Your task to perform on an android device: Search for pizza restaurants on Maps Image 0: 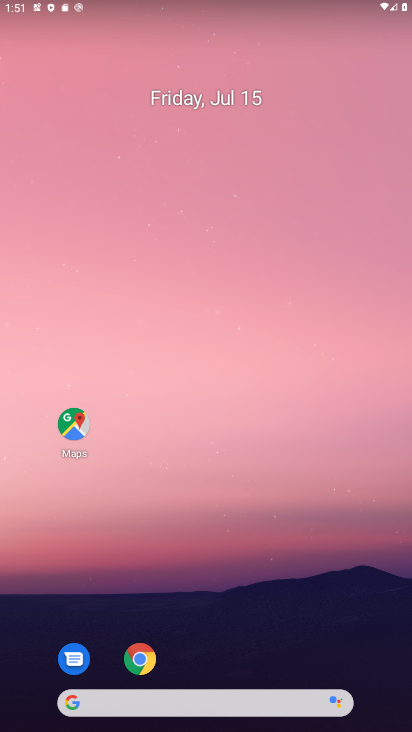
Step 0: drag from (182, 665) to (203, 262)
Your task to perform on an android device: Search for pizza restaurants on Maps Image 1: 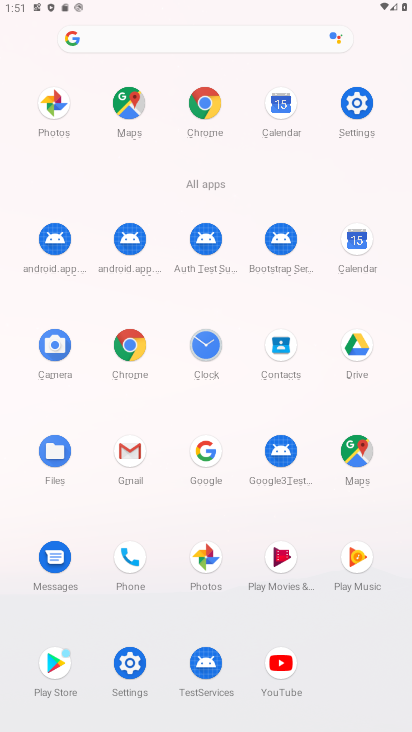
Step 1: click (344, 452)
Your task to perform on an android device: Search for pizza restaurants on Maps Image 2: 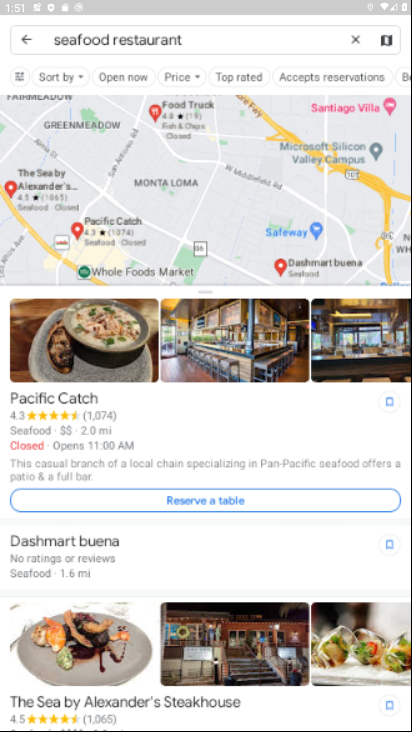
Step 2: click (353, 39)
Your task to perform on an android device: Search for pizza restaurants on Maps Image 3: 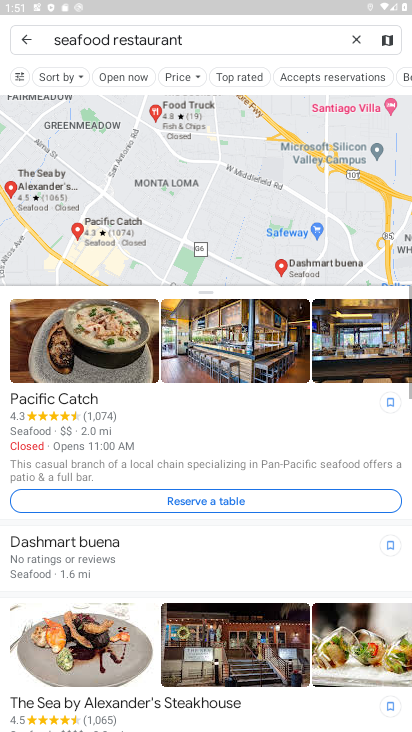
Step 3: click (353, 39)
Your task to perform on an android device: Search for pizza restaurants on Maps Image 4: 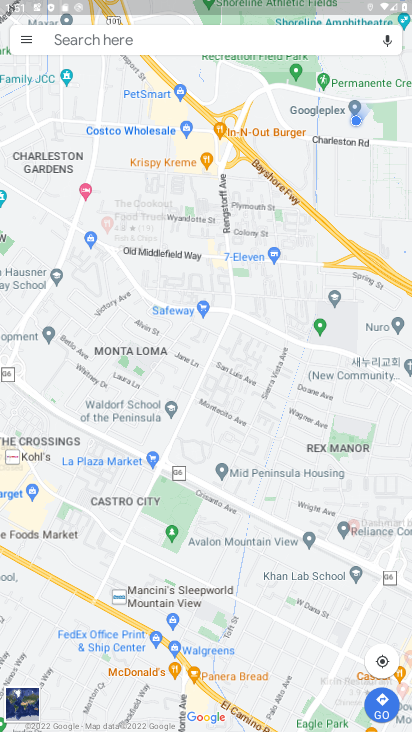
Step 4: click (86, 34)
Your task to perform on an android device: Search for pizza restaurants on Maps Image 5: 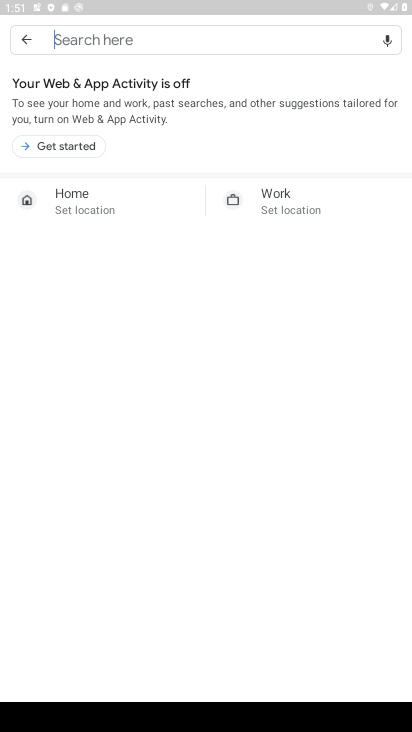
Step 5: click (152, 29)
Your task to perform on an android device: Search for pizza restaurants on Maps Image 6: 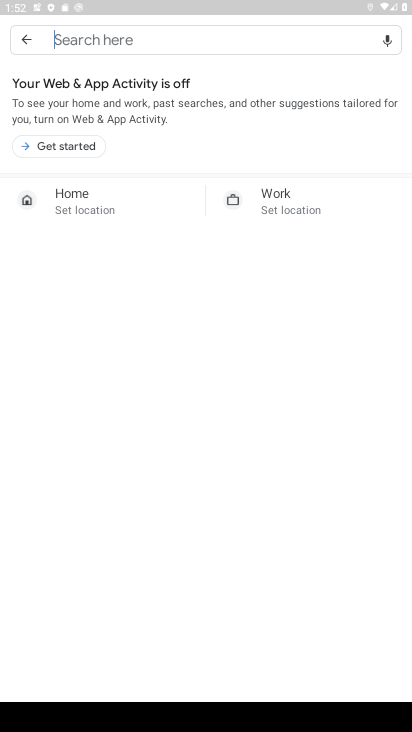
Step 6: type " pizza restaurants  "
Your task to perform on an android device: Search for pizza restaurants on Maps Image 7: 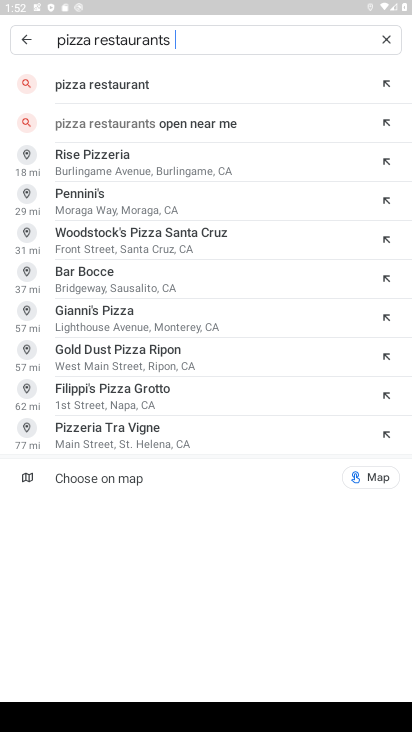
Step 7: click (134, 78)
Your task to perform on an android device: Search for pizza restaurants on Maps Image 8: 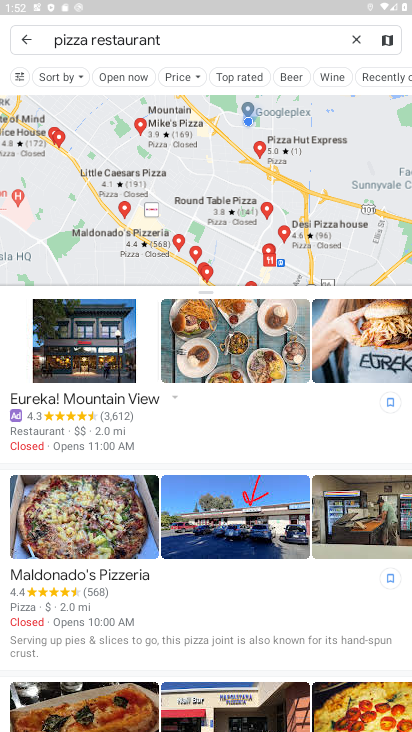
Step 8: task complete